Your task to perform on an android device: make emails show in primary in the gmail app Image 0: 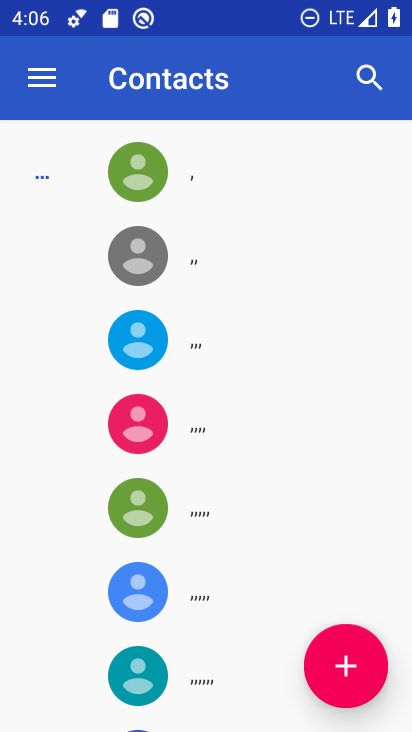
Step 0: press home button
Your task to perform on an android device: make emails show in primary in the gmail app Image 1: 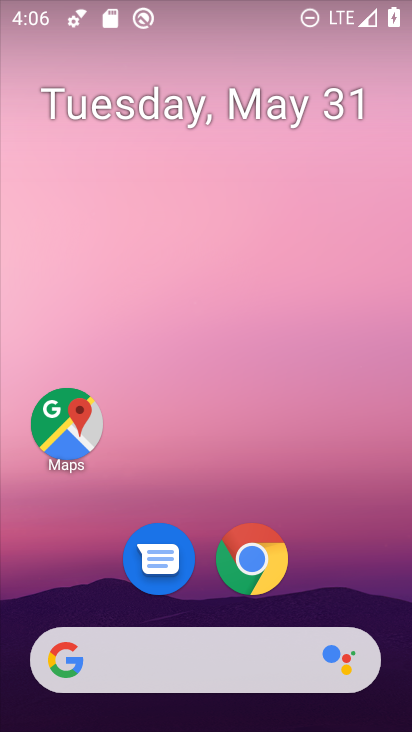
Step 1: drag from (246, 698) to (263, 151)
Your task to perform on an android device: make emails show in primary in the gmail app Image 2: 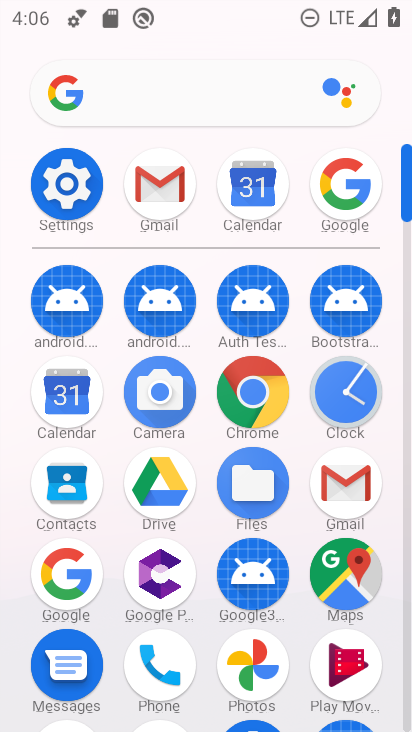
Step 2: click (342, 474)
Your task to perform on an android device: make emails show in primary in the gmail app Image 3: 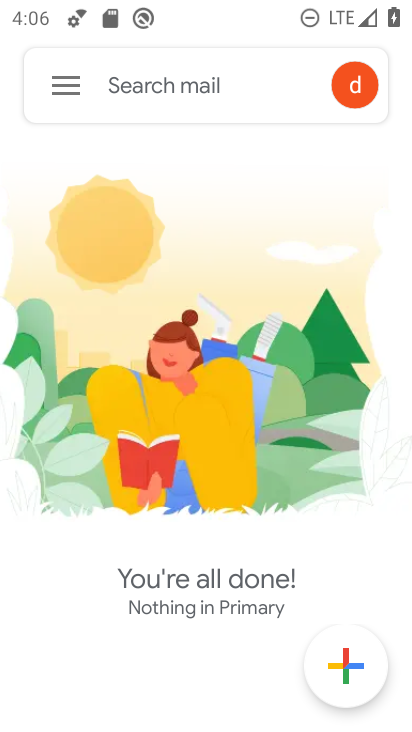
Step 3: click (64, 88)
Your task to perform on an android device: make emails show in primary in the gmail app Image 4: 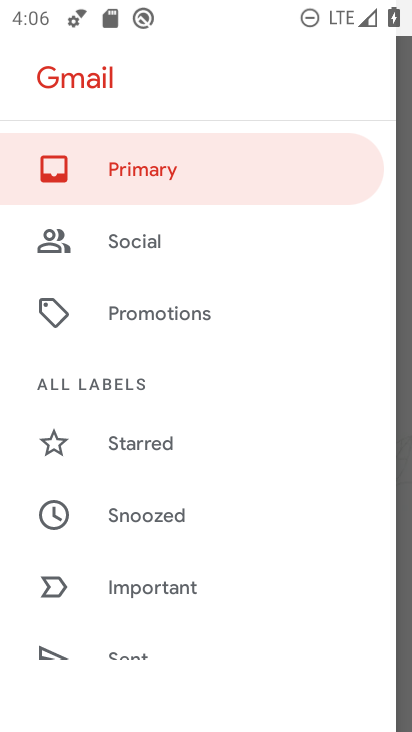
Step 4: drag from (213, 615) to (220, 268)
Your task to perform on an android device: make emails show in primary in the gmail app Image 5: 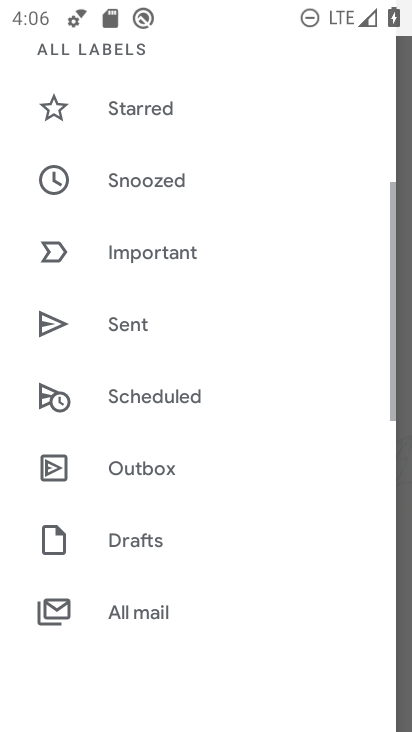
Step 5: drag from (190, 475) to (190, 271)
Your task to perform on an android device: make emails show in primary in the gmail app Image 6: 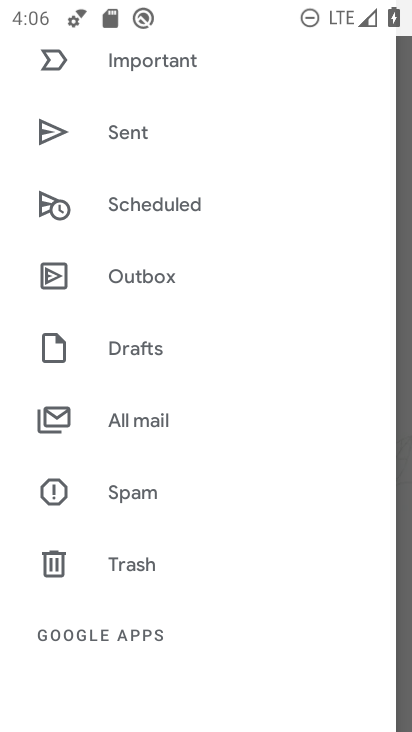
Step 6: drag from (189, 618) to (203, 248)
Your task to perform on an android device: make emails show in primary in the gmail app Image 7: 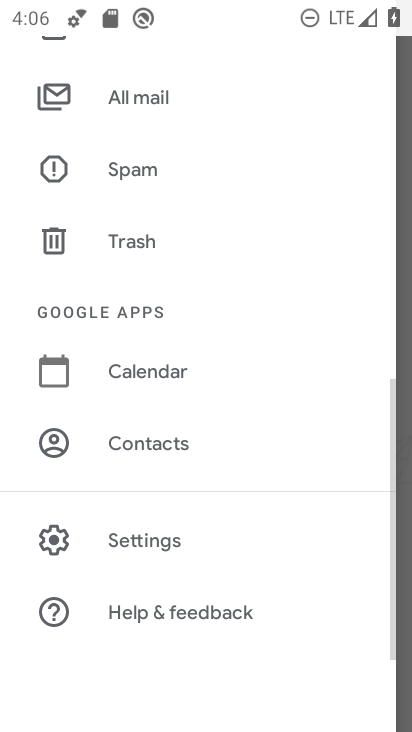
Step 7: click (145, 537)
Your task to perform on an android device: make emails show in primary in the gmail app Image 8: 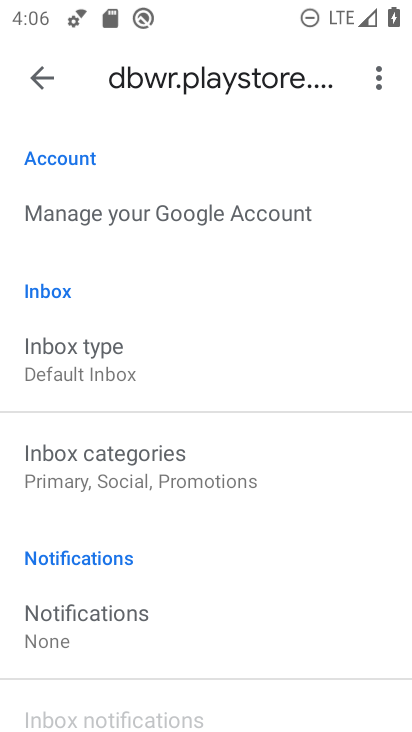
Step 8: drag from (164, 178) to (202, 568)
Your task to perform on an android device: make emails show in primary in the gmail app Image 9: 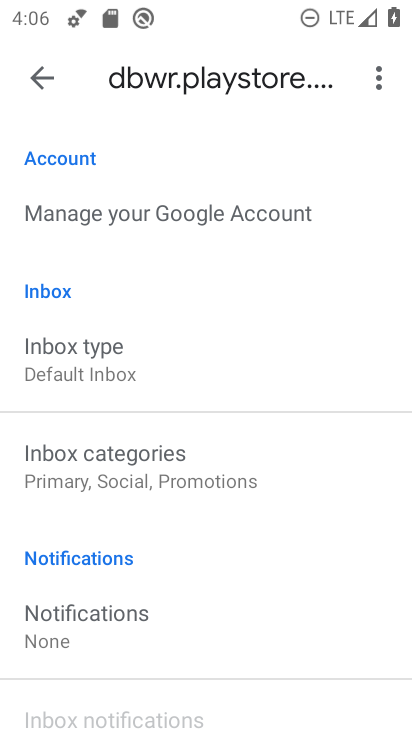
Step 9: drag from (227, 199) to (262, 618)
Your task to perform on an android device: make emails show in primary in the gmail app Image 10: 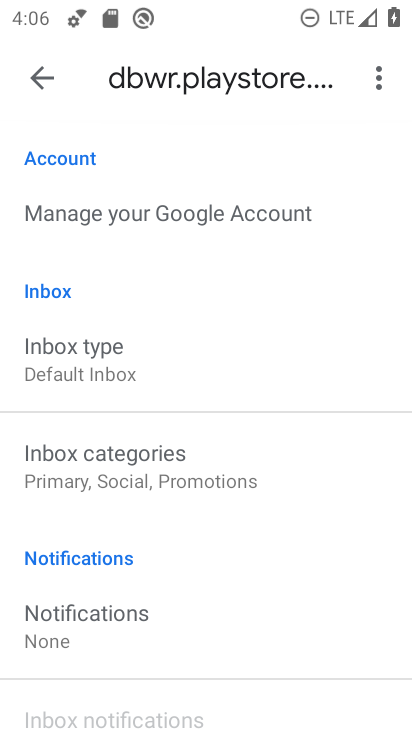
Step 10: click (72, 360)
Your task to perform on an android device: make emails show in primary in the gmail app Image 11: 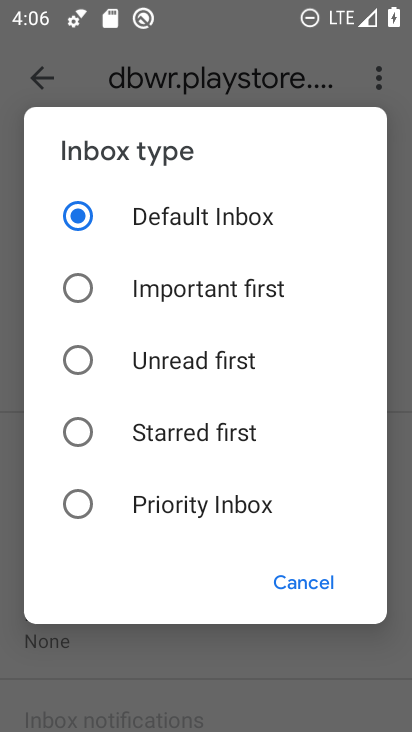
Step 11: click (299, 582)
Your task to perform on an android device: make emails show in primary in the gmail app Image 12: 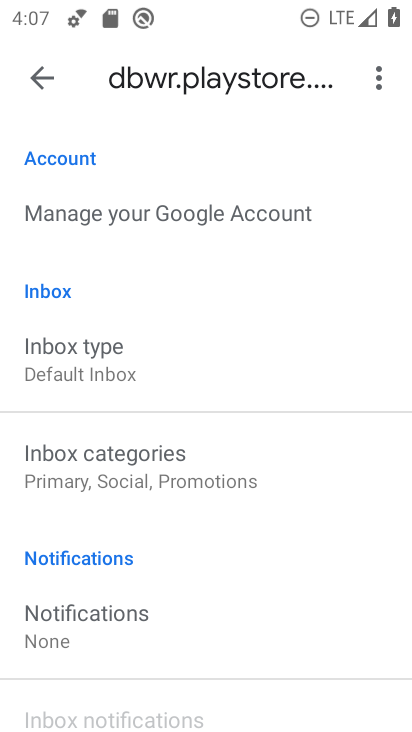
Step 12: click (85, 472)
Your task to perform on an android device: make emails show in primary in the gmail app Image 13: 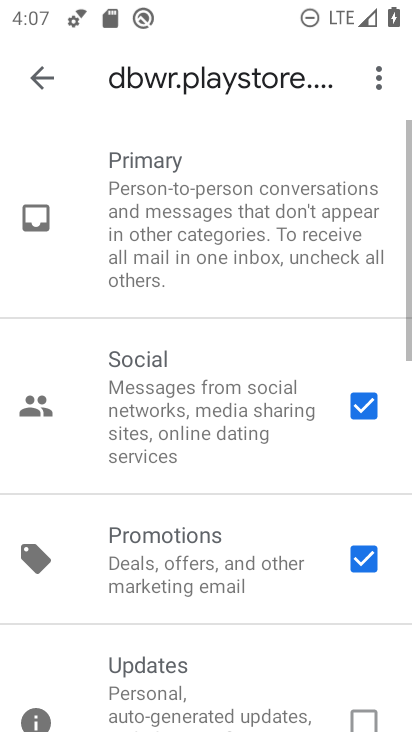
Step 13: click (360, 398)
Your task to perform on an android device: make emails show in primary in the gmail app Image 14: 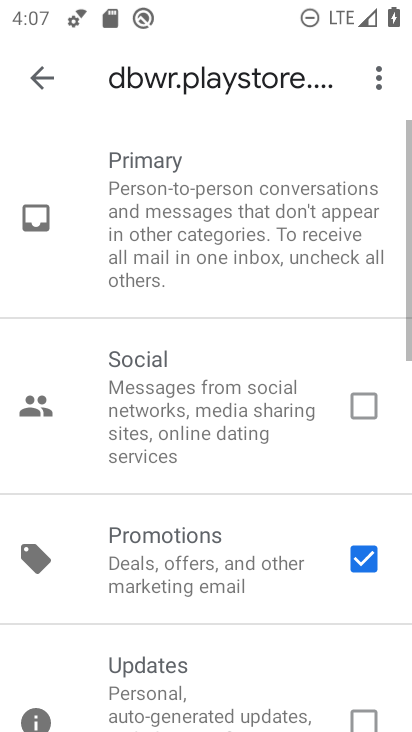
Step 14: click (365, 553)
Your task to perform on an android device: make emails show in primary in the gmail app Image 15: 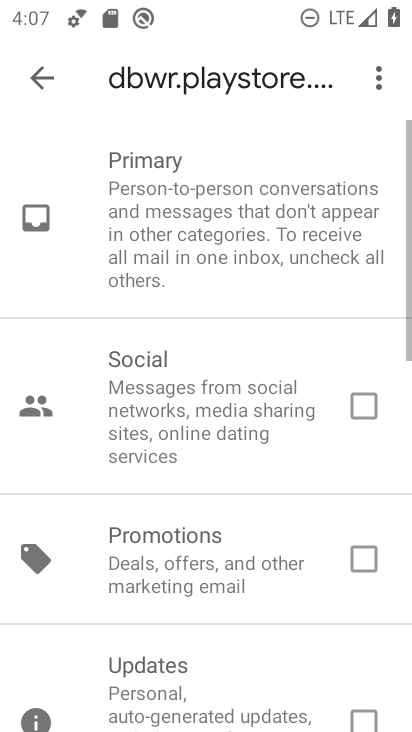
Step 15: click (39, 74)
Your task to perform on an android device: make emails show in primary in the gmail app Image 16: 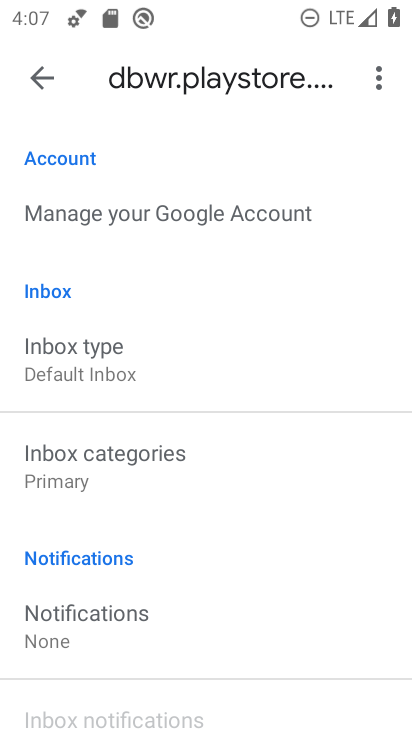
Step 16: task complete